Your task to perform on an android device: Open calendar and show me the second week of next month Image 0: 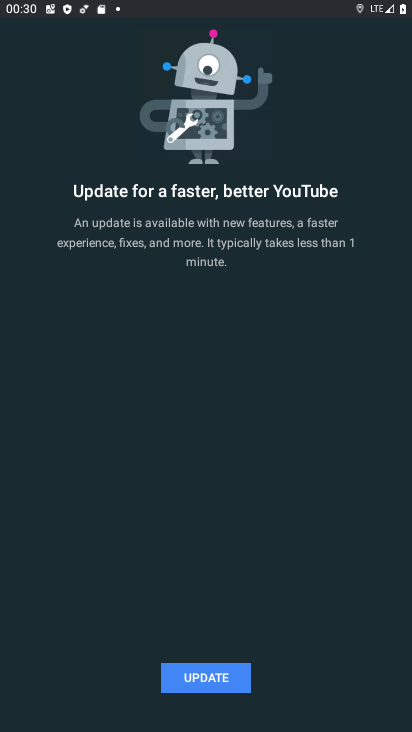
Step 0: press home button
Your task to perform on an android device: Open calendar and show me the second week of next month Image 1: 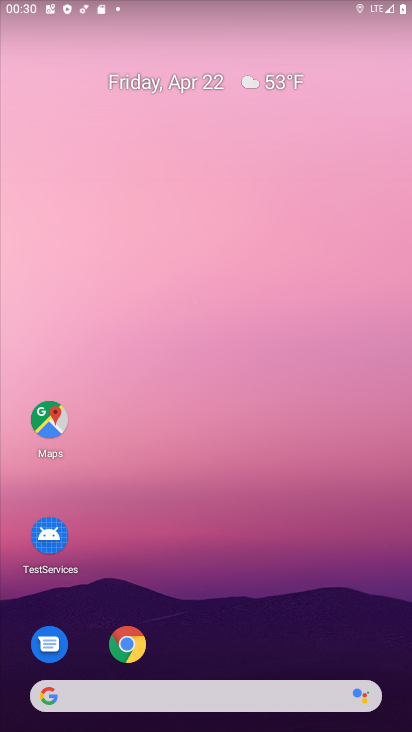
Step 1: drag from (333, 602) to (290, 53)
Your task to perform on an android device: Open calendar and show me the second week of next month Image 2: 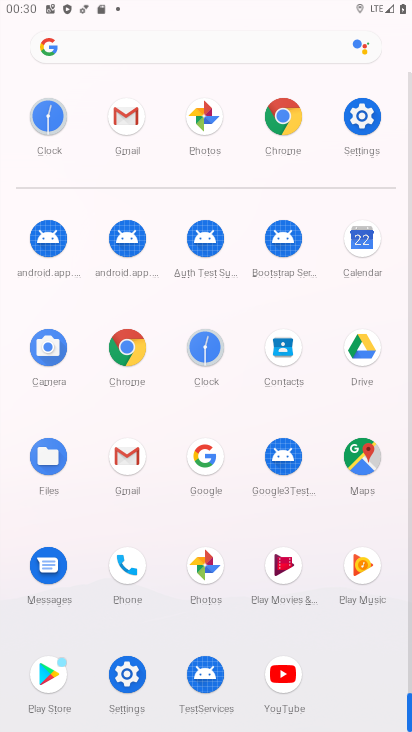
Step 2: click (361, 261)
Your task to perform on an android device: Open calendar and show me the second week of next month Image 3: 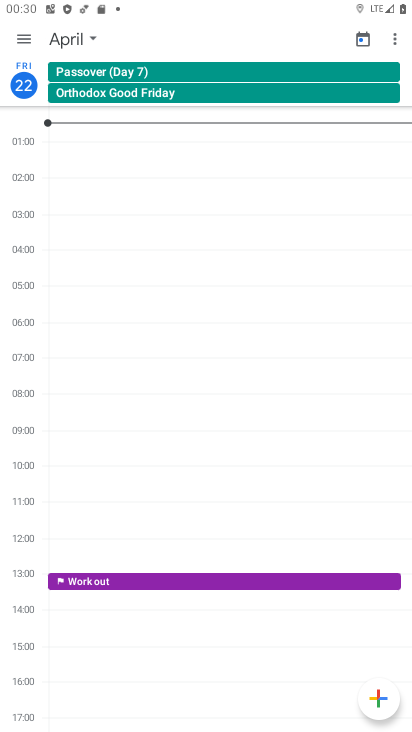
Step 3: click (65, 42)
Your task to perform on an android device: Open calendar and show me the second week of next month Image 4: 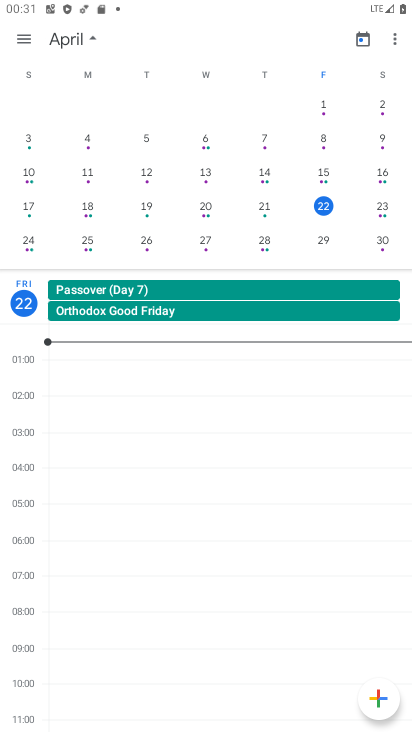
Step 4: drag from (352, 145) to (12, 178)
Your task to perform on an android device: Open calendar and show me the second week of next month Image 5: 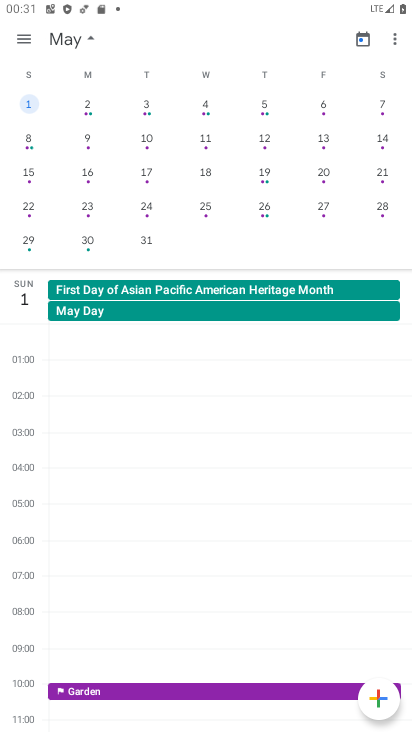
Step 5: click (87, 140)
Your task to perform on an android device: Open calendar and show me the second week of next month Image 6: 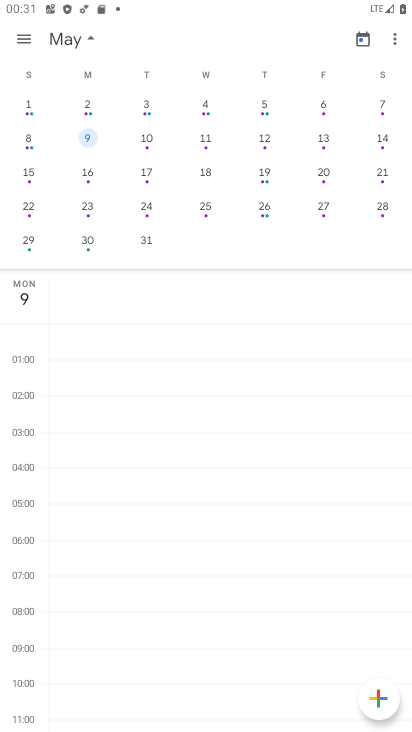
Step 6: task complete